Your task to perform on an android device: What's the weather going to be tomorrow? Image 0: 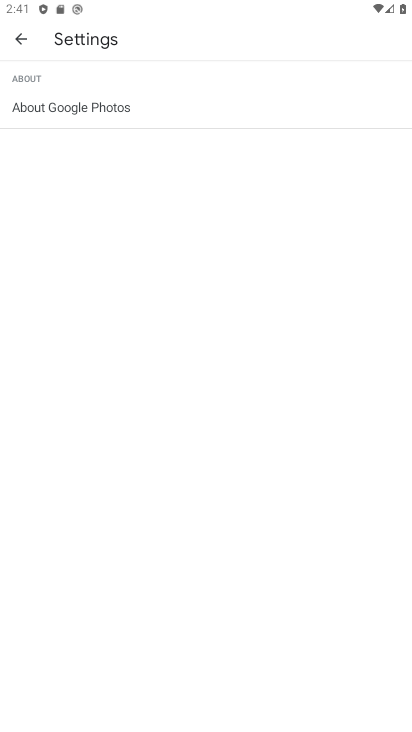
Step 0: press home button
Your task to perform on an android device: What's the weather going to be tomorrow? Image 1: 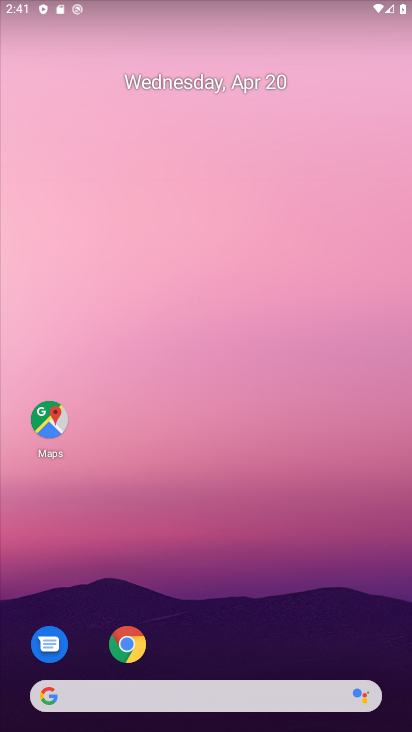
Step 1: click (174, 690)
Your task to perform on an android device: What's the weather going to be tomorrow? Image 2: 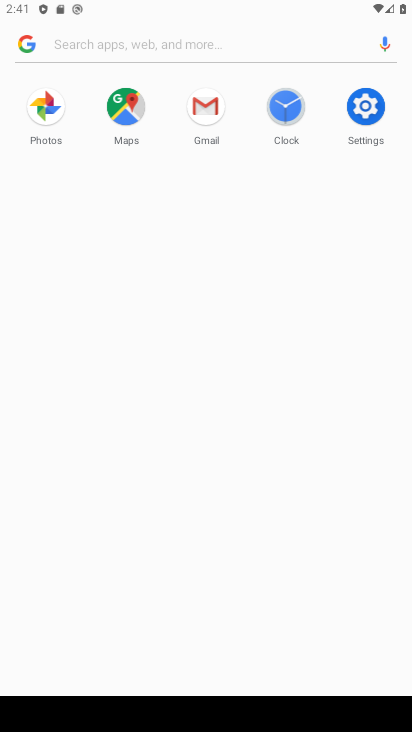
Step 2: type "What's the weather going to be tomorrow?"
Your task to perform on an android device: What's the weather going to be tomorrow? Image 3: 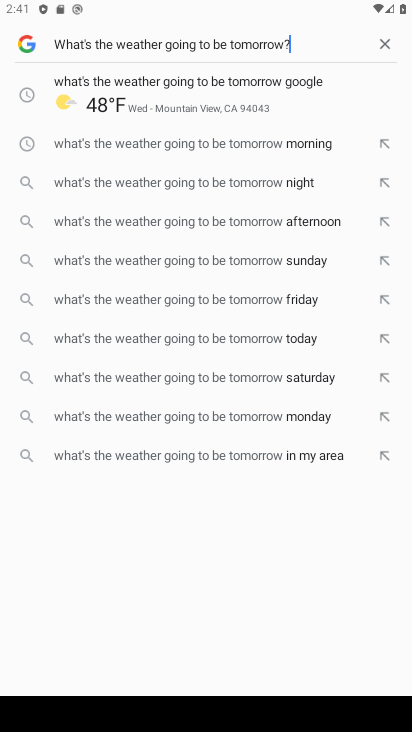
Step 3: click (192, 90)
Your task to perform on an android device: What's the weather going to be tomorrow? Image 4: 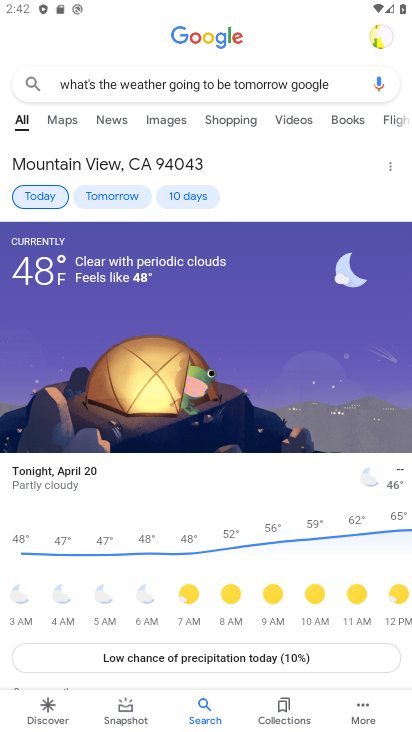
Step 4: task complete